Your task to perform on an android device: What is the news today? Image 0: 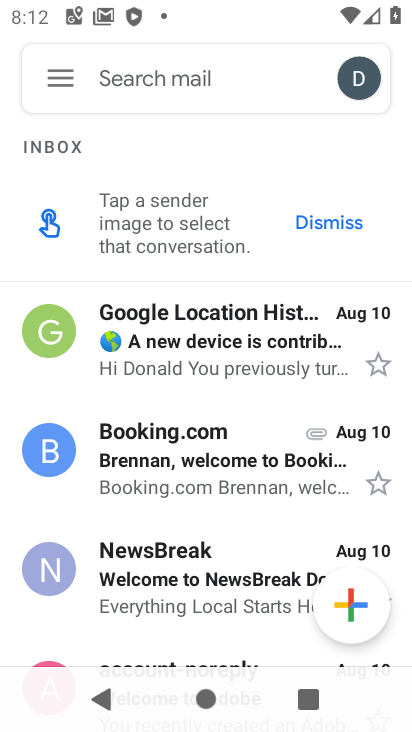
Step 0: press home button
Your task to perform on an android device: What is the news today? Image 1: 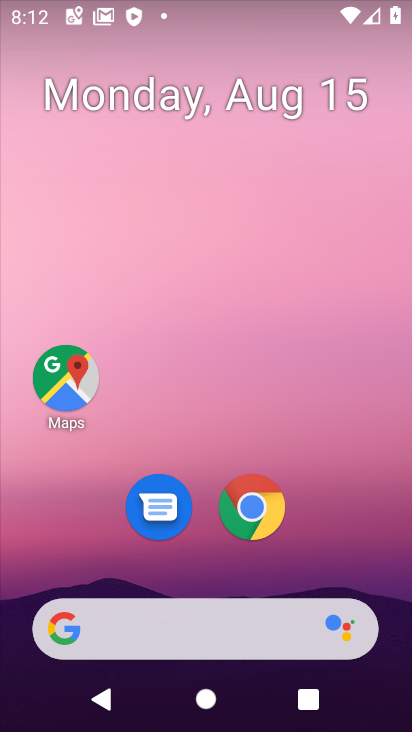
Step 1: click (170, 608)
Your task to perform on an android device: What is the news today? Image 2: 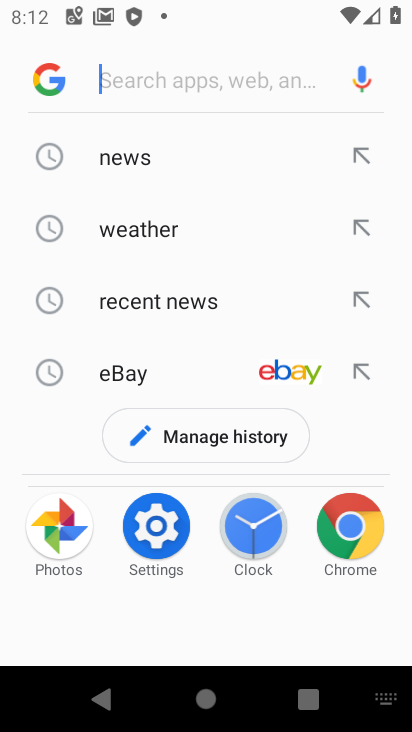
Step 2: click (125, 179)
Your task to perform on an android device: What is the news today? Image 3: 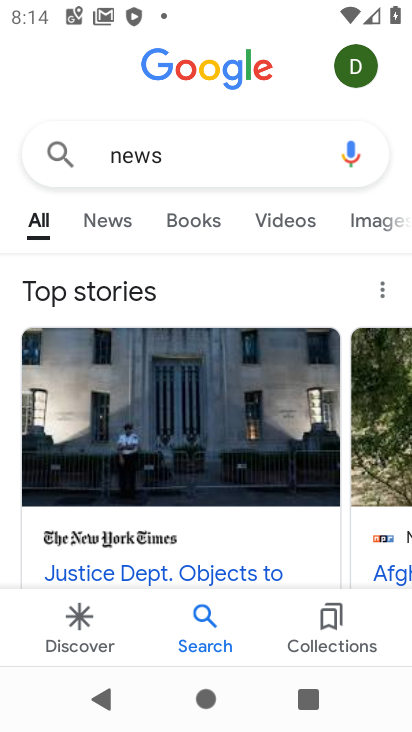
Step 3: task complete